Your task to perform on an android device: Do I have any events this weekend? Image 0: 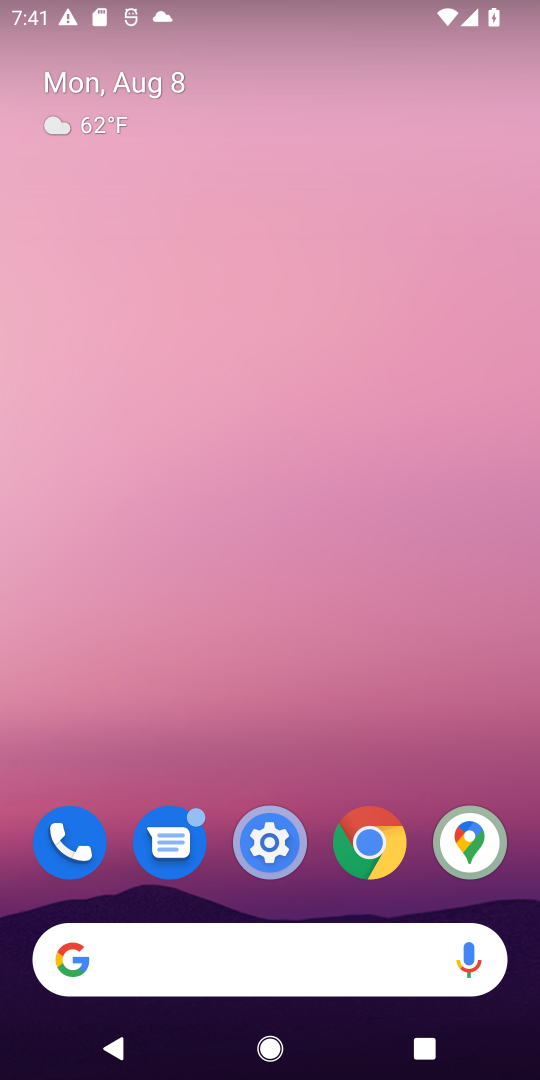
Step 0: drag from (293, 743) to (343, 0)
Your task to perform on an android device: Do I have any events this weekend? Image 1: 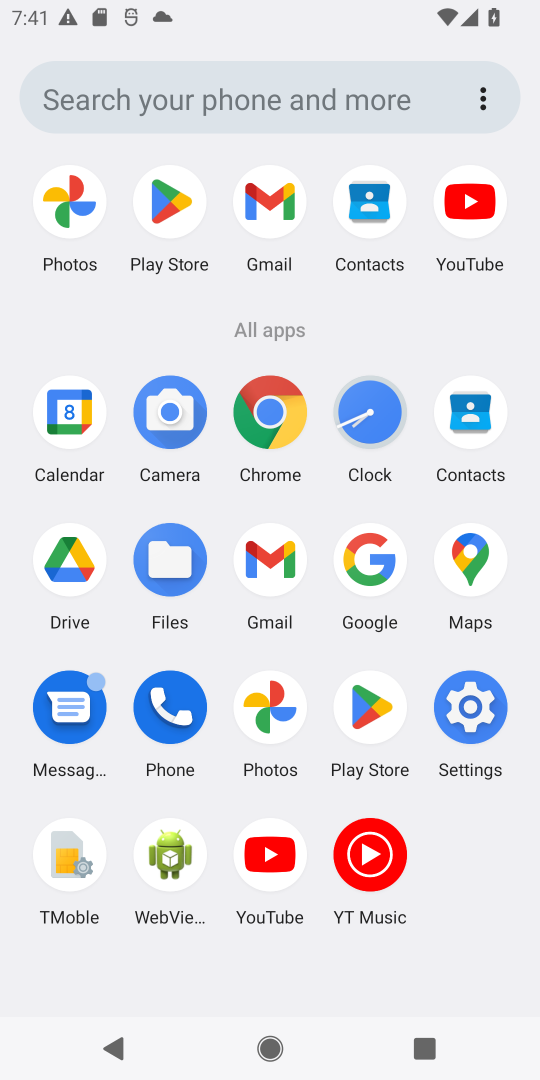
Step 1: click (65, 408)
Your task to perform on an android device: Do I have any events this weekend? Image 2: 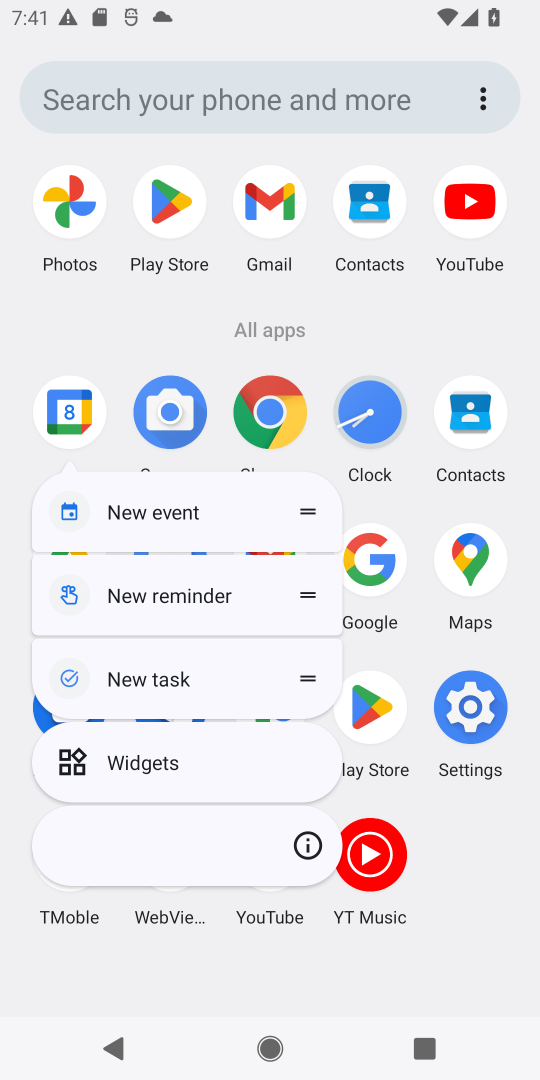
Step 2: click (71, 408)
Your task to perform on an android device: Do I have any events this weekend? Image 3: 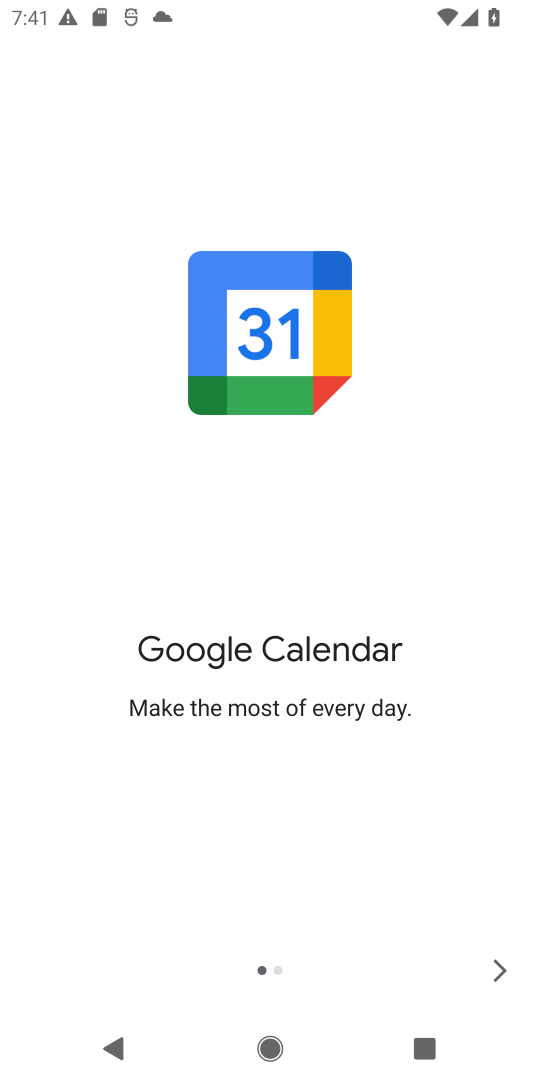
Step 3: click (497, 970)
Your task to perform on an android device: Do I have any events this weekend? Image 4: 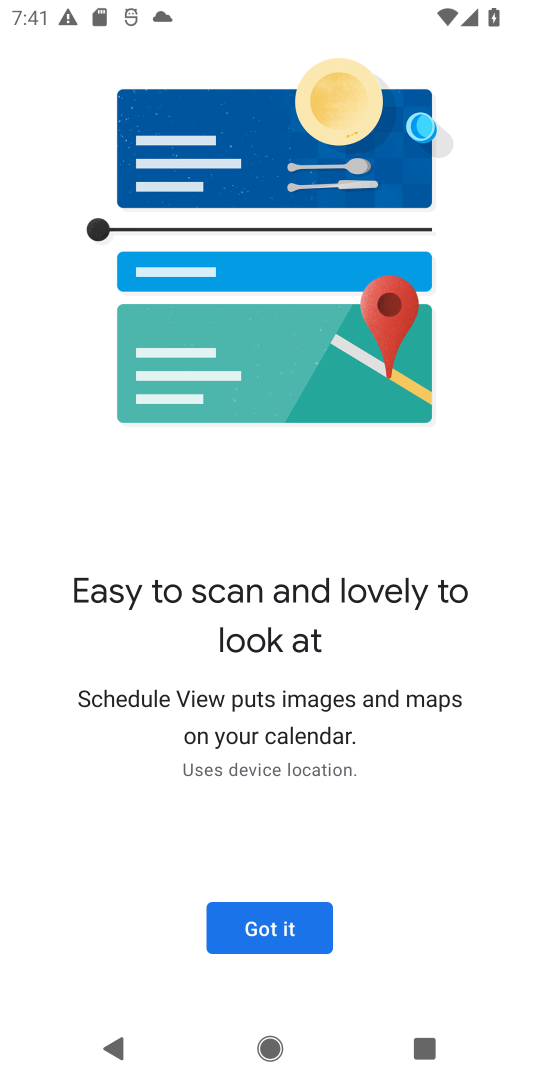
Step 4: click (316, 924)
Your task to perform on an android device: Do I have any events this weekend? Image 5: 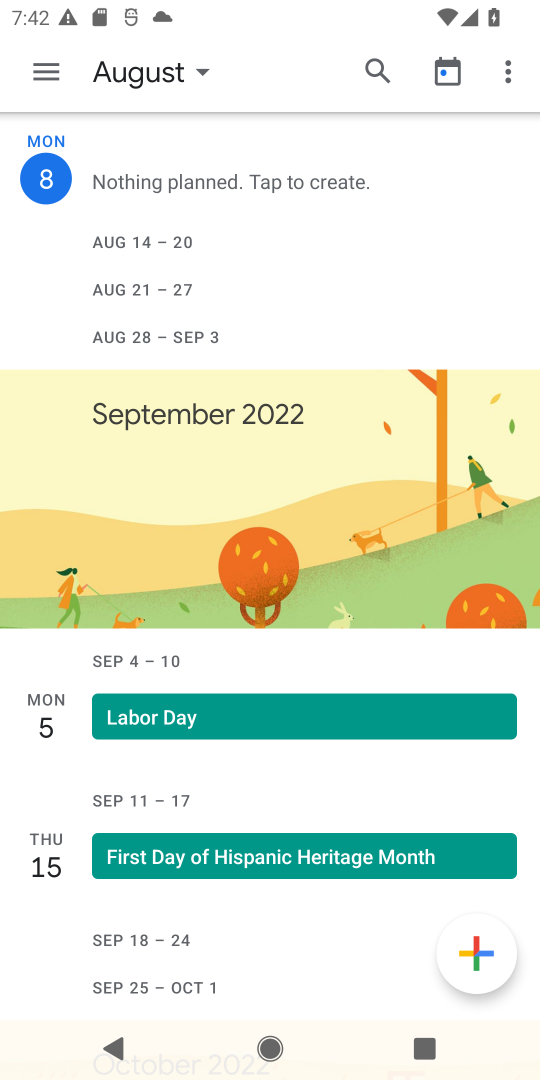
Step 5: click (50, 73)
Your task to perform on an android device: Do I have any events this weekend? Image 6: 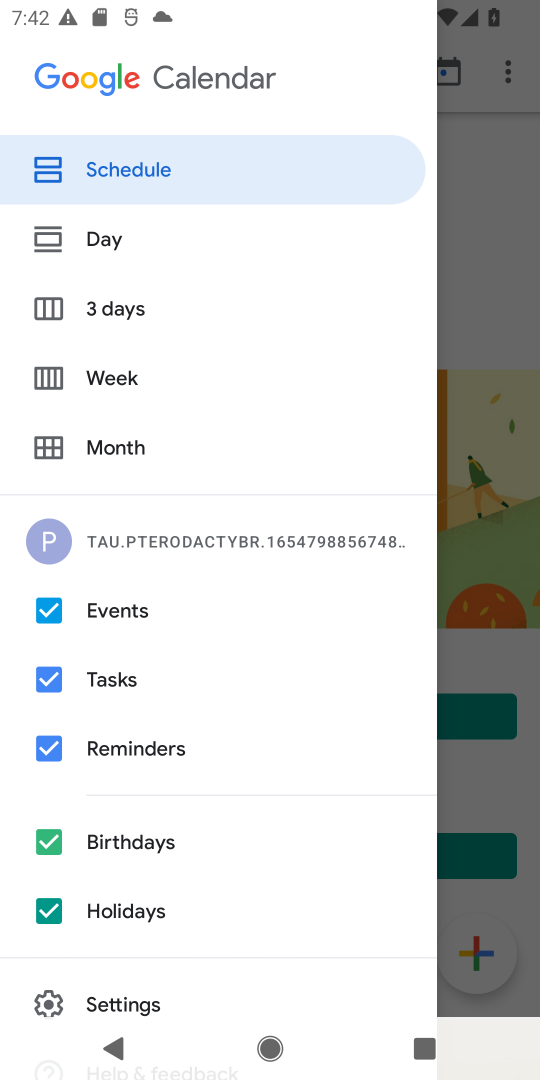
Step 6: click (93, 375)
Your task to perform on an android device: Do I have any events this weekend? Image 7: 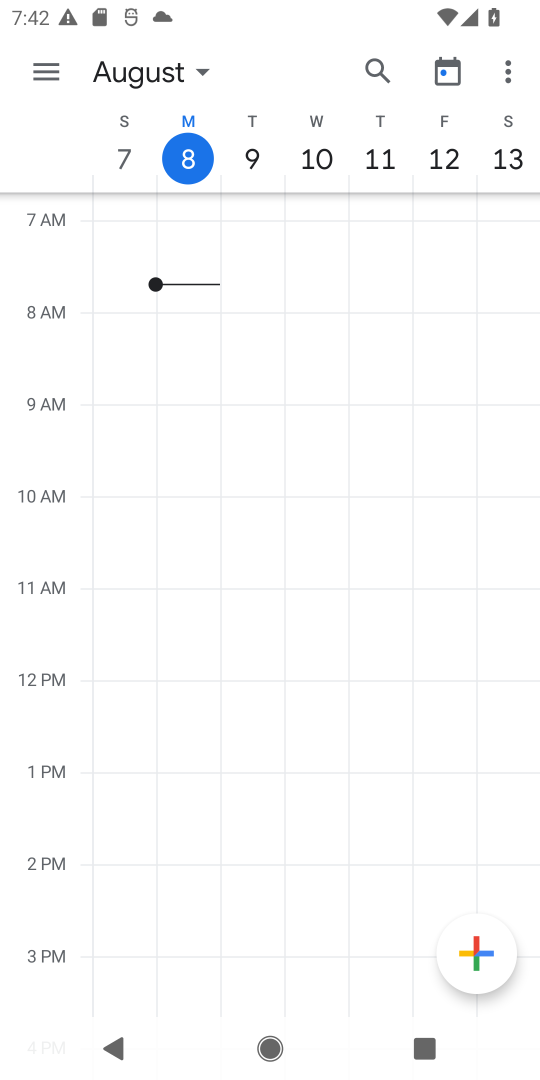
Step 7: click (505, 151)
Your task to perform on an android device: Do I have any events this weekend? Image 8: 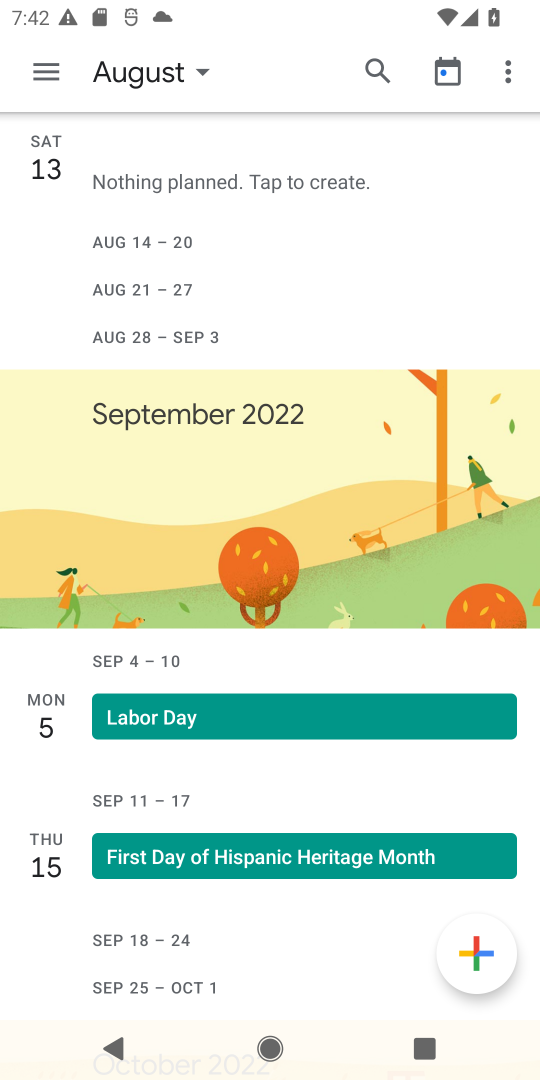
Step 8: task complete